Your task to perform on an android device: Go to accessibility settings Image 0: 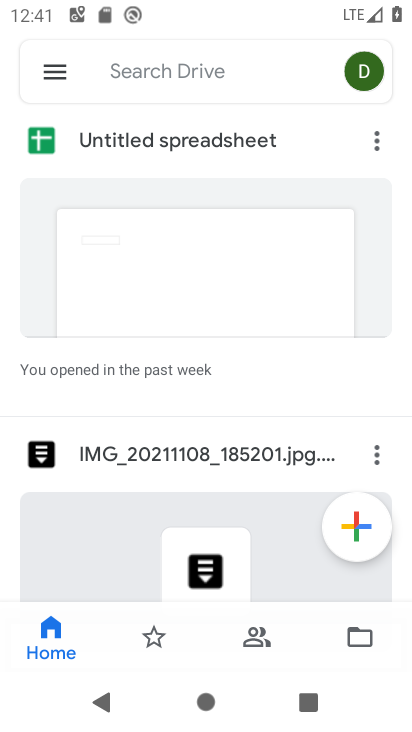
Step 0: press home button
Your task to perform on an android device: Go to accessibility settings Image 1: 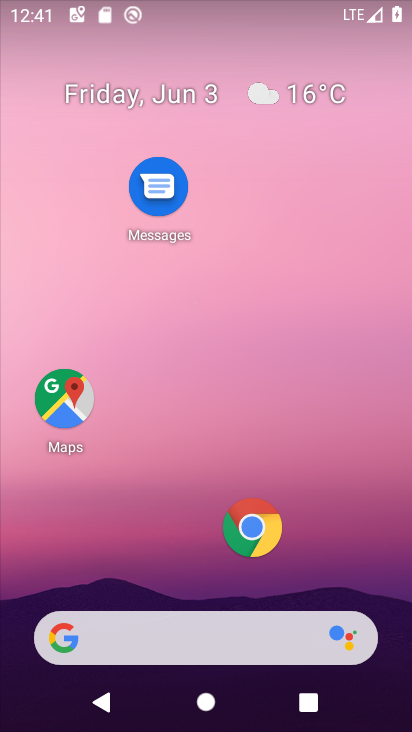
Step 1: drag from (214, 366) to (217, 86)
Your task to perform on an android device: Go to accessibility settings Image 2: 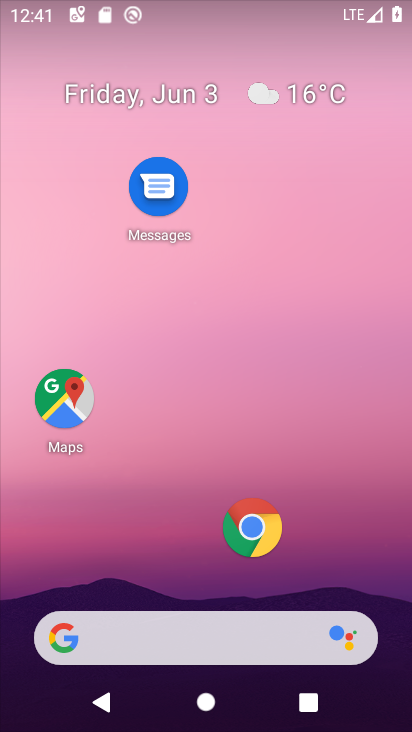
Step 2: drag from (296, 571) to (294, 39)
Your task to perform on an android device: Go to accessibility settings Image 3: 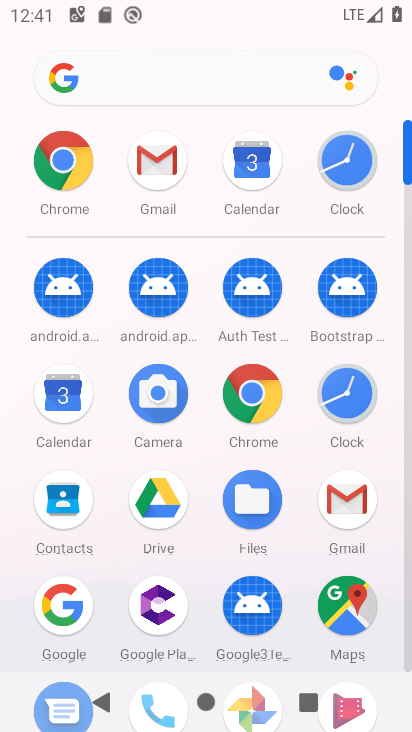
Step 3: drag from (198, 565) to (230, 47)
Your task to perform on an android device: Go to accessibility settings Image 4: 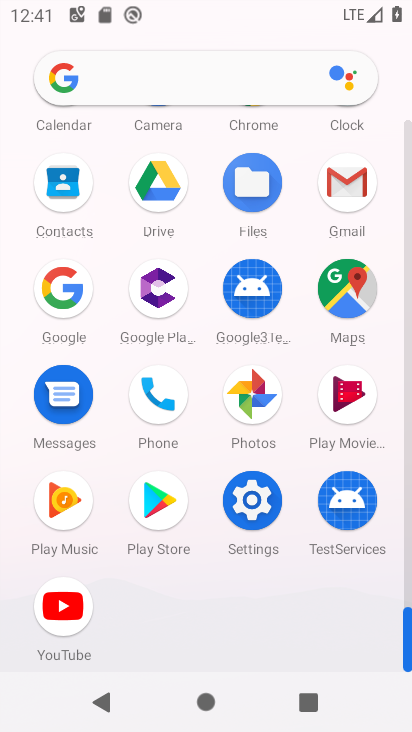
Step 4: click (251, 494)
Your task to perform on an android device: Go to accessibility settings Image 5: 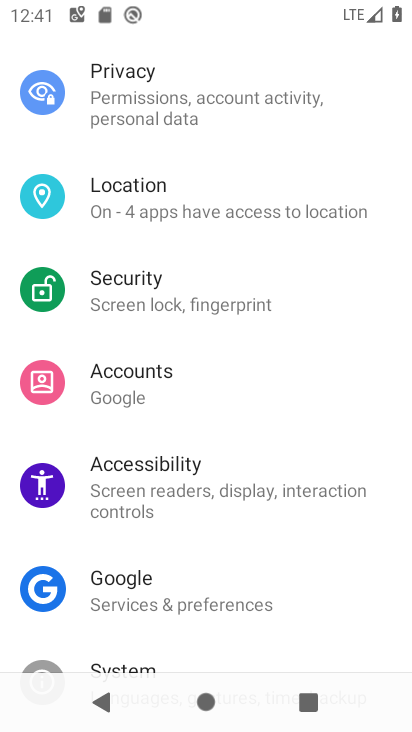
Step 5: click (200, 503)
Your task to perform on an android device: Go to accessibility settings Image 6: 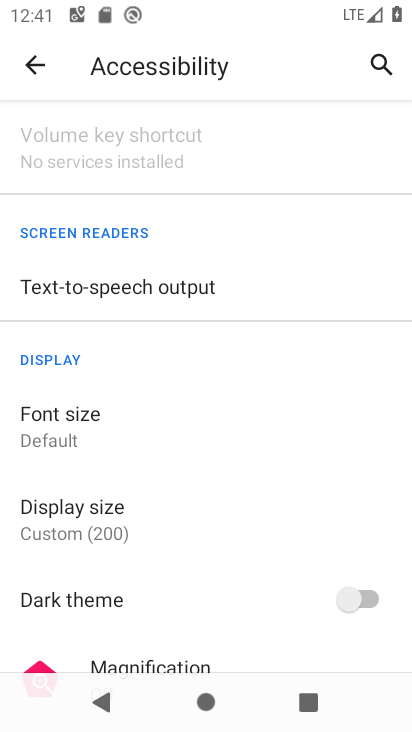
Step 6: task complete